Your task to perform on an android device: turn on wifi Image 0: 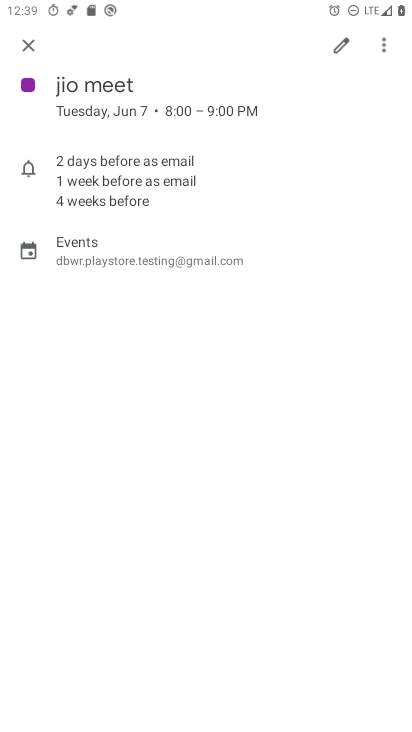
Step 0: press home button
Your task to perform on an android device: turn on wifi Image 1: 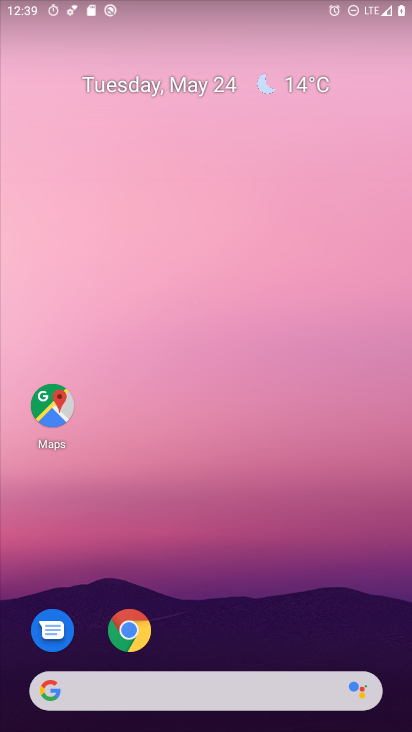
Step 1: drag from (358, 606) to (342, 182)
Your task to perform on an android device: turn on wifi Image 2: 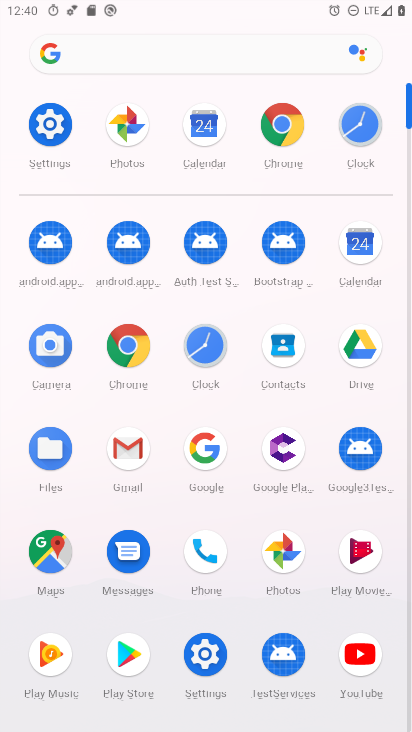
Step 2: click (215, 640)
Your task to perform on an android device: turn on wifi Image 3: 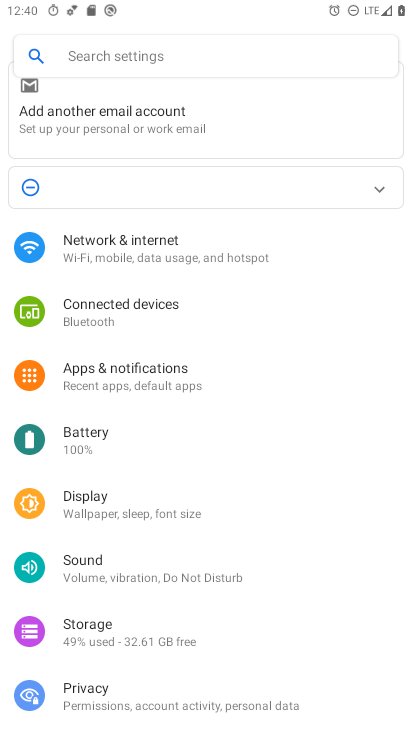
Step 3: click (140, 239)
Your task to perform on an android device: turn on wifi Image 4: 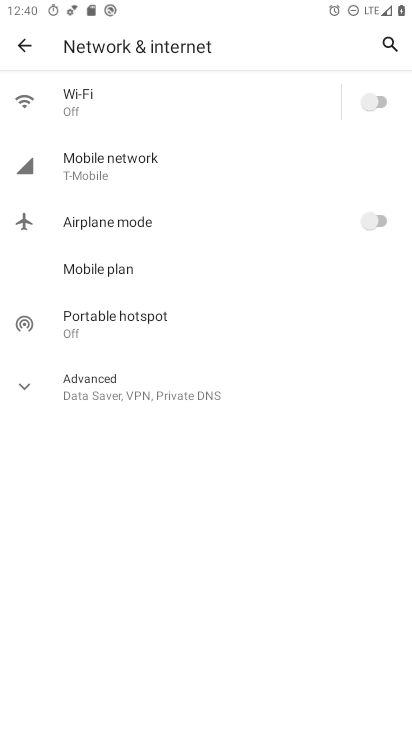
Step 4: click (382, 99)
Your task to perform on an android device: turn on wifi Image 5: 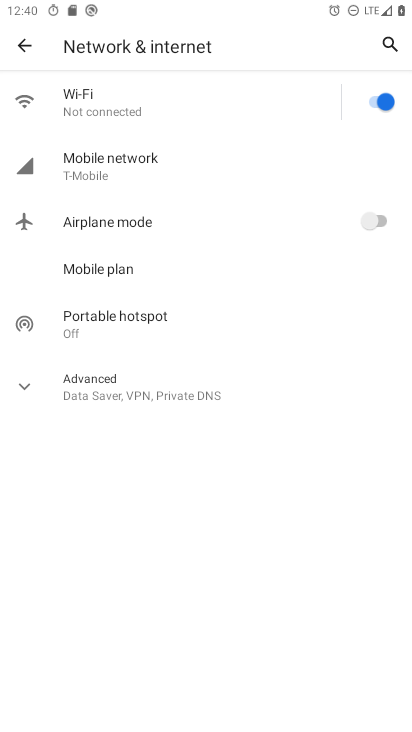
Step 5: task complete